Your task to perform on an android device: see sites visited before in the chrome app Image 0: 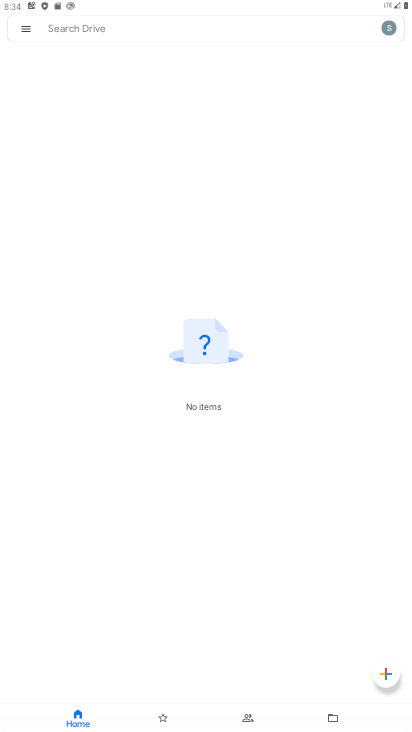
Step 0: press home button
Your task to perform on an android device: see sites visited before in the chrome app Image 1: 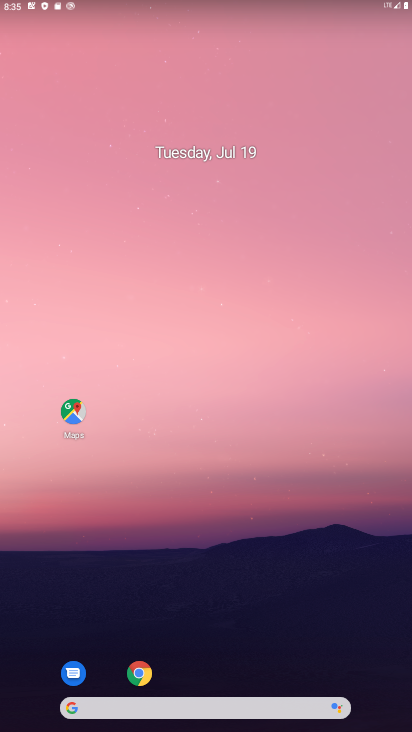
Step 1: drag from (262, 311) to (158, 29)
Your task to perform on an android device: see sites visited before in the chrome app Image 2: 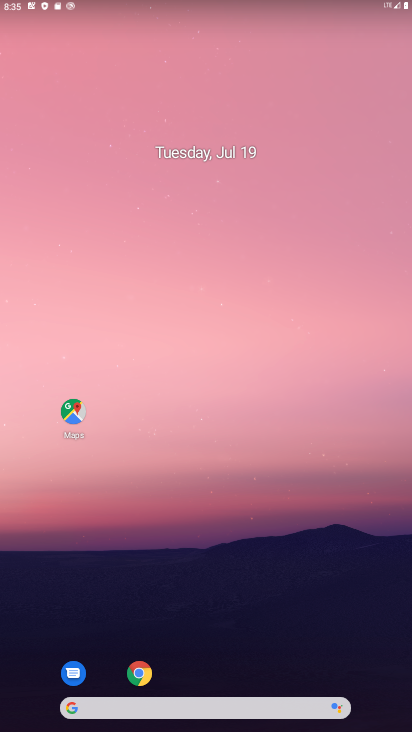
Step 2: drag from (393, 668) to (200, 10)
Your task to perform on an android device: see sites visited before in the chrome app Image 3: 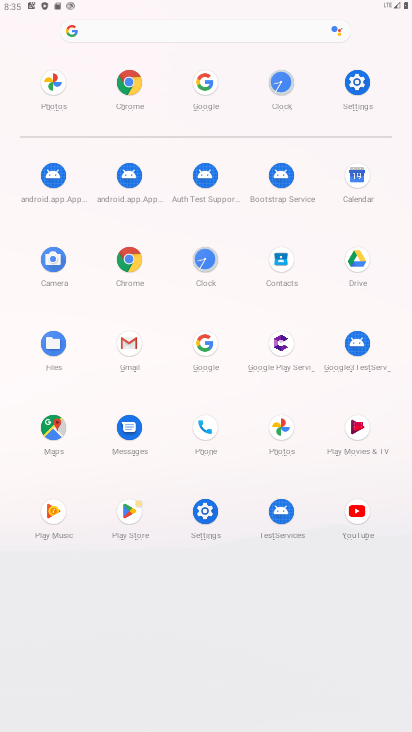
Step 3: click (125, 270)
Your task to perform on an android device: see sites visited before in the chrome app Image 4: 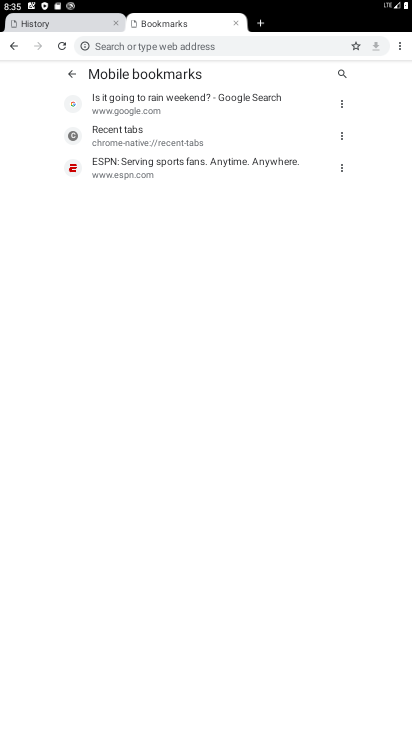
Step 4: task complete